Your task to perform on an android device: Open Reddit.com Image 0: 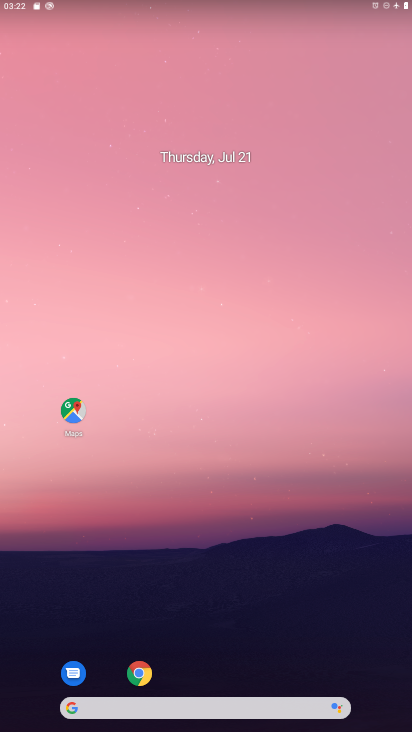
Step 0: drag from (230, 667) to (212, 152)
Your task to perform on an android device: Open Reddit.com Image 1: 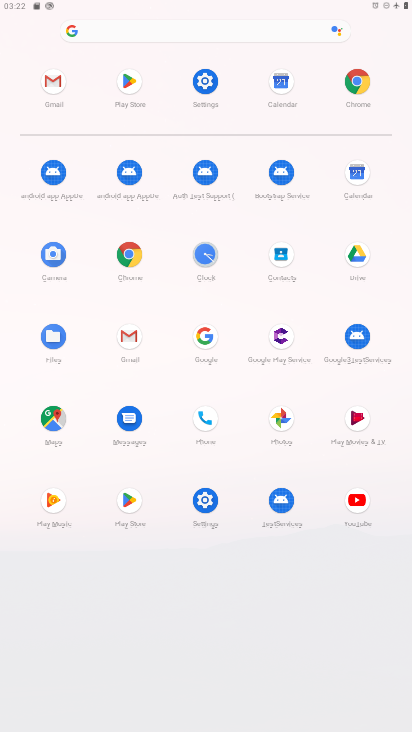
Step 1: click (367, 70)
Your task to perform on an android device: Open Reddit.com Image 2: 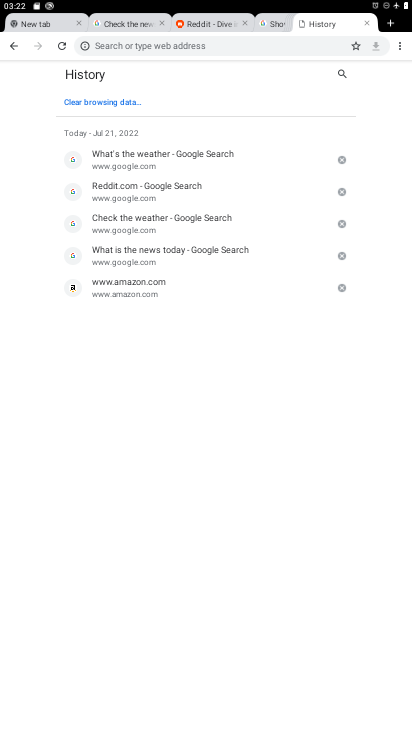
Step 2: click (192, 23)
Your task to perform on an android device: Open Reddit.com Image 3: 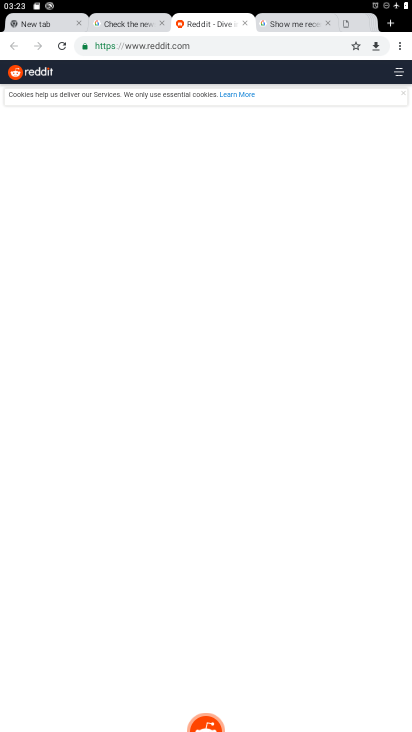
Step 3: task complete